Your task to perform on an android device: Open Youtube and go to the subscriptions tab Image 0: 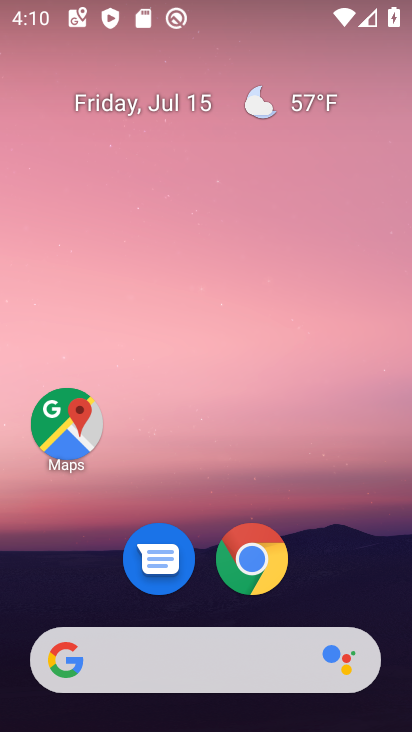
Step 0: drag from (127, 575) to (176, 17)
Your task to perform on an android device: Open Youtube and go to the subscriptions tab Image 1: 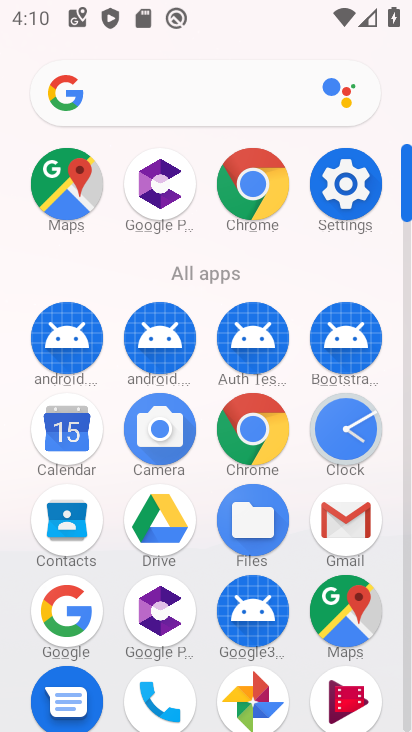
Step 1: drag from (248, 646) to (341, 72)
Your task to perform on an android device: Open Youtube and go to the subscriptions tab Image 2: 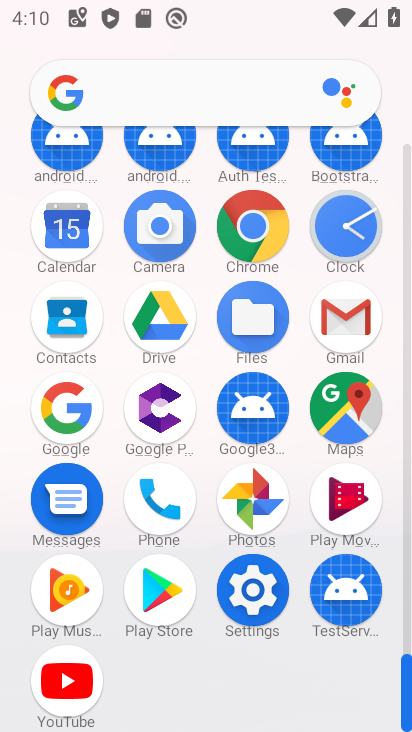
Step 2: click (84, 683)
Your task to perform on an android device: Open Youtube and go to the subscriptions tab Image 3: 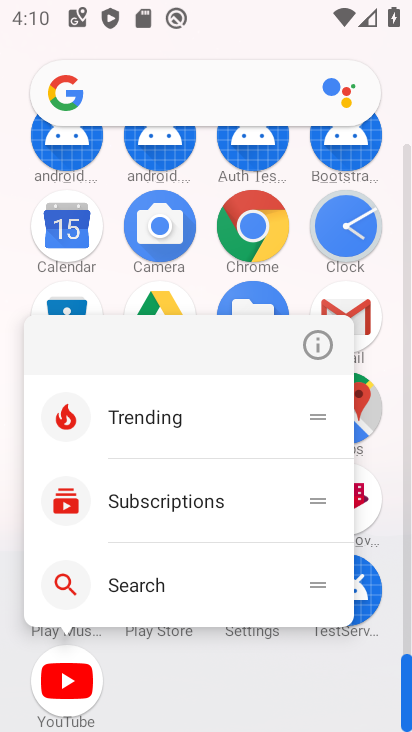
Step 3: click (96, 673)
Your task to perform on an android device: Open Youtube and go to the subscriptions tab Image 4: 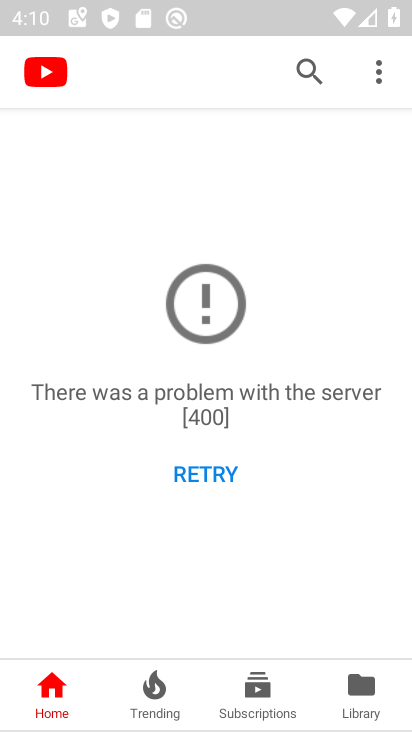
Step 4: click (257, 677)
Your task to perform on an android device: Open Youtube and go to the subscriptions tab Image 5: 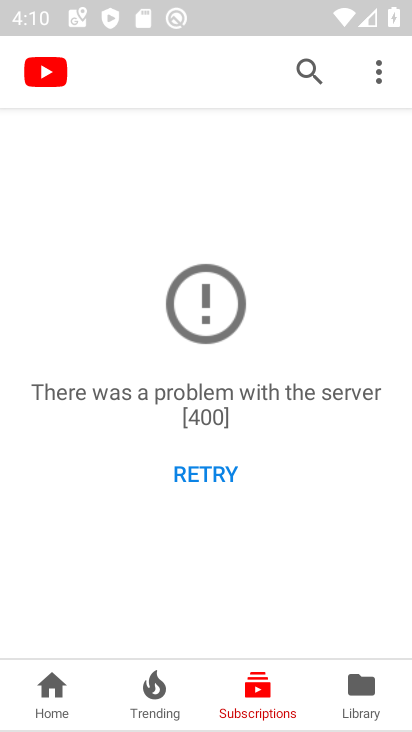
Step 5: task complete